Your task to perform on an android device: move a message to another label in the gmail app Image 0: 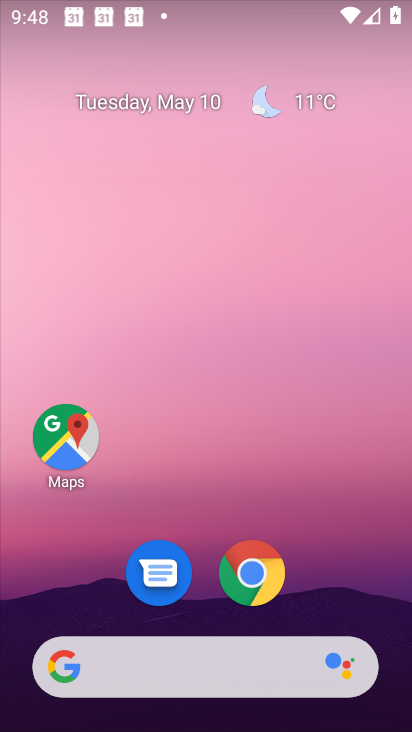
Step 0: drag from (327, 540) to (324, 97)
Your task to perform on an android device: move a message to another label in the gmail app Image 1: 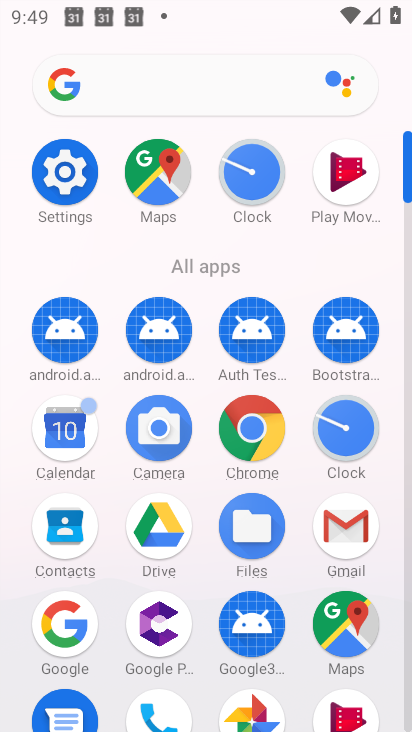
Step 1: click (358, 538)
Your task to perform on an android device: move a message to another label in the gmail app Image 2: 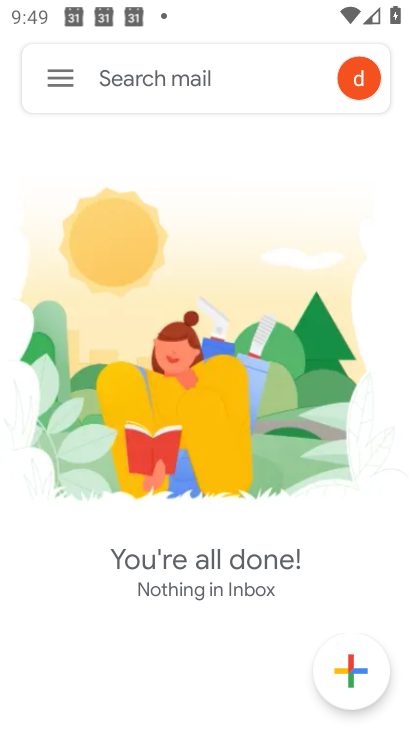
Step 2: click (57, 82)
Your task to perform on an android device: move a message to another label in the gmail app Image 3: 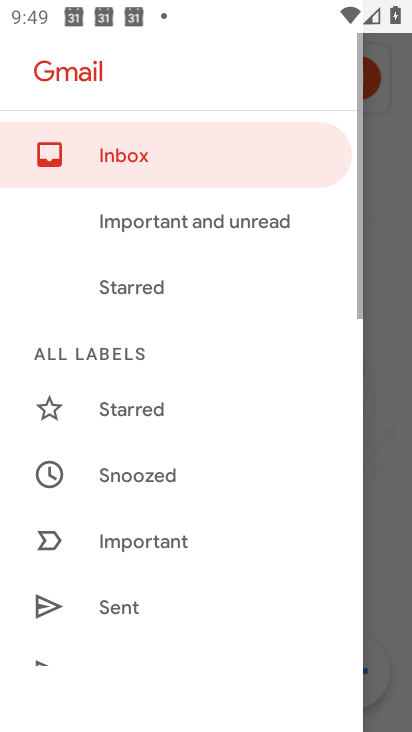
Step 3: click (138, 218)
Your task to perform on an android device: move a message to another label in the gmail app Image 4: 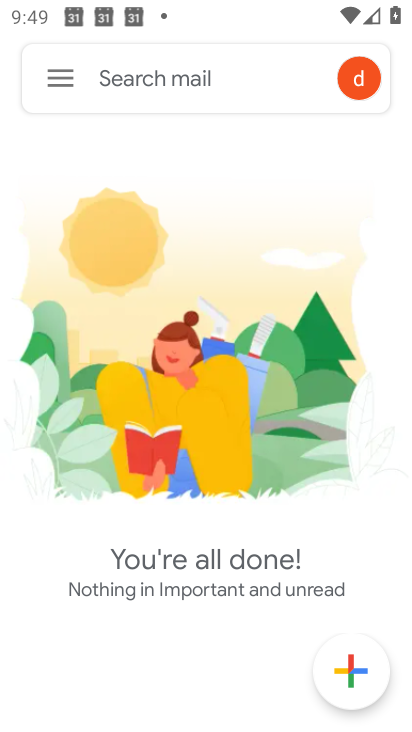
Step 4: task complete